Your task to perform on an android device: Add dell xps to the cart on walmart Image 0: 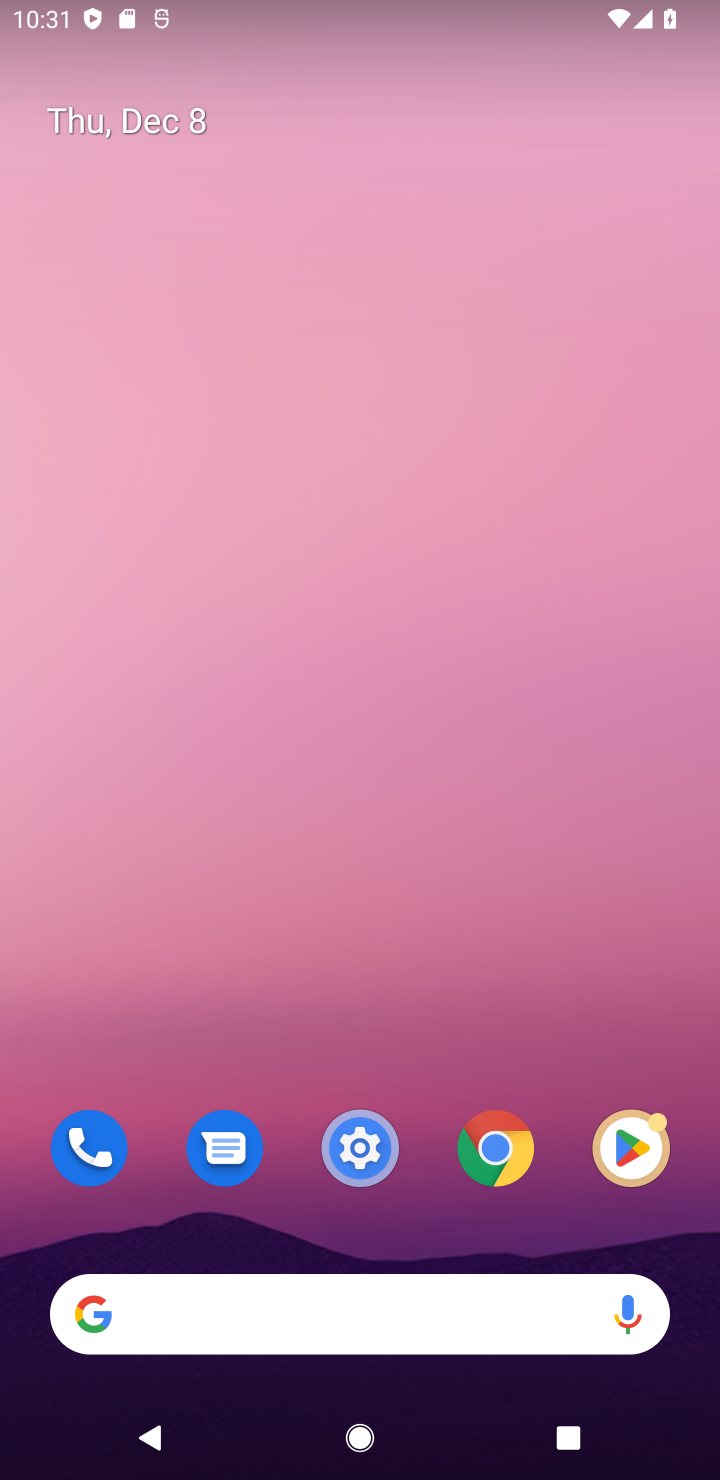
Step 0: click (188, 1304)
Your task to perform on an android device: Add dell xps to the cart on walmart Image 1: 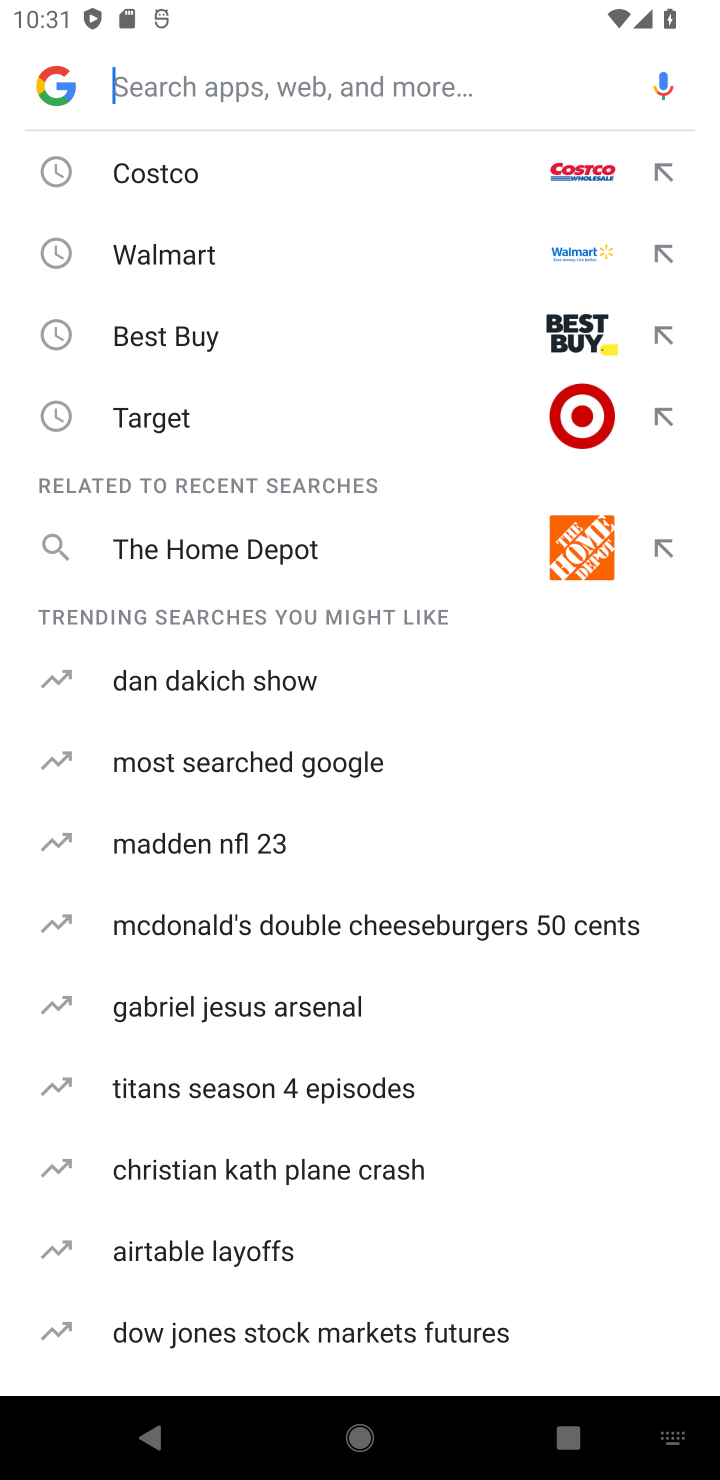
Step 1: click (172, 255)
Your task to perform on an android device: Add dell xps to the cart on walmart Image 2: 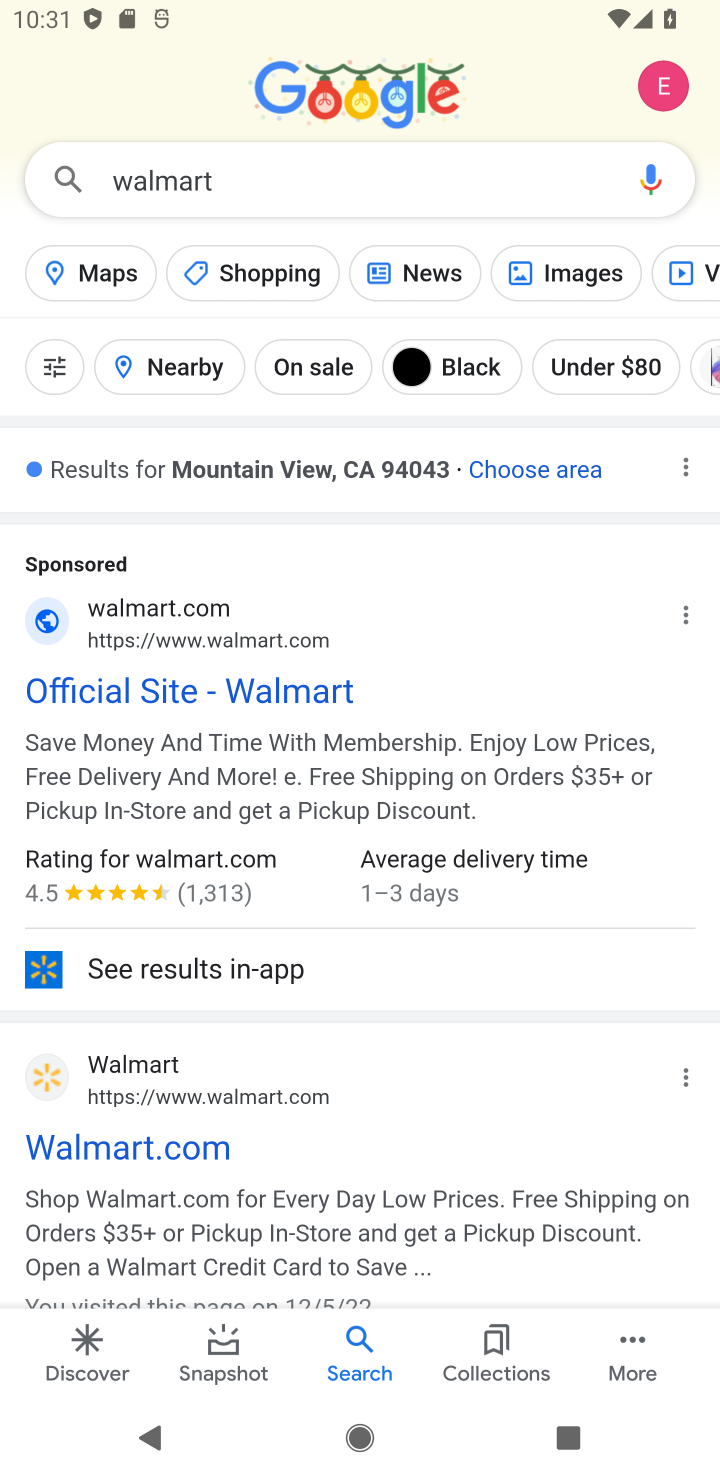
Step 2: click (170, 690)
Your task to perform on an android device: Add dell xps to the cart on walmart Image 3: 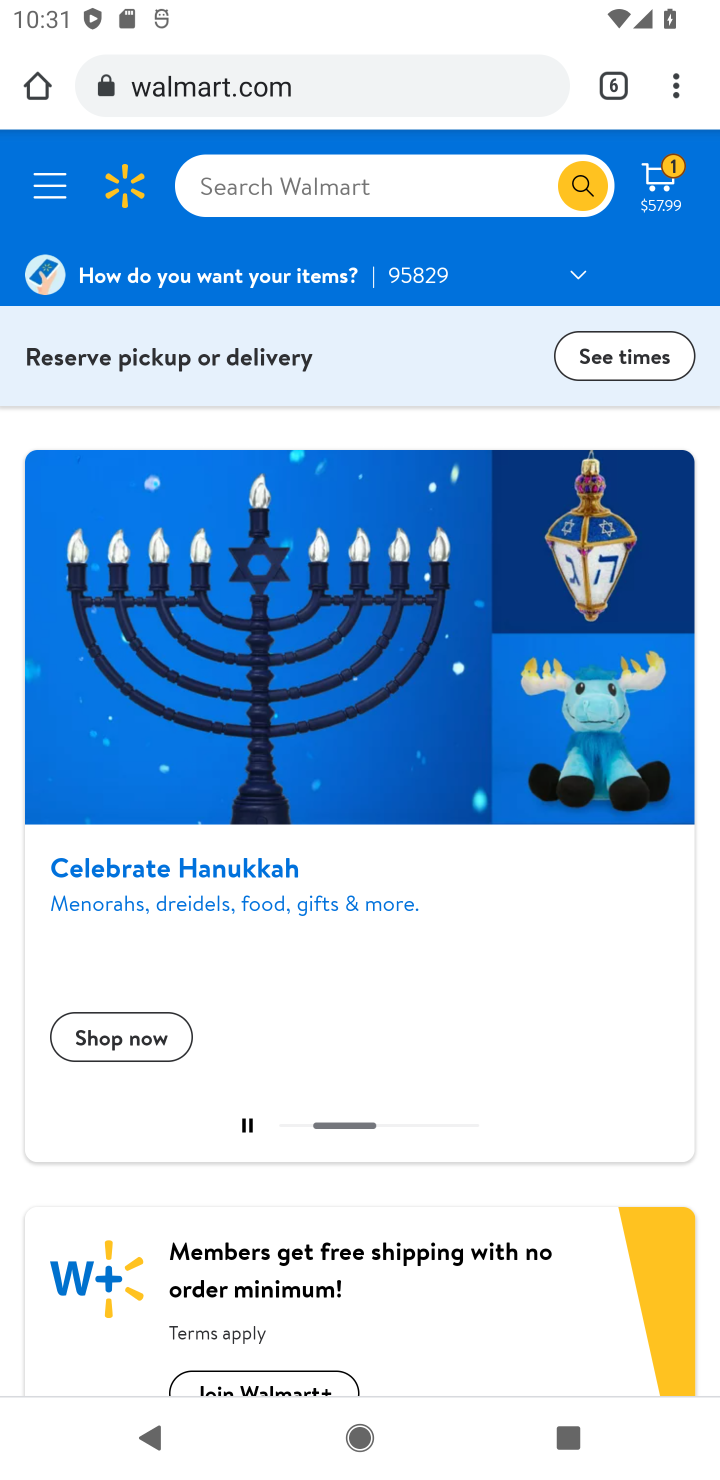
Step 3: click (350, 170)
Your task to perform on an android device: Add dell xps to the cart on walmart Image 4: 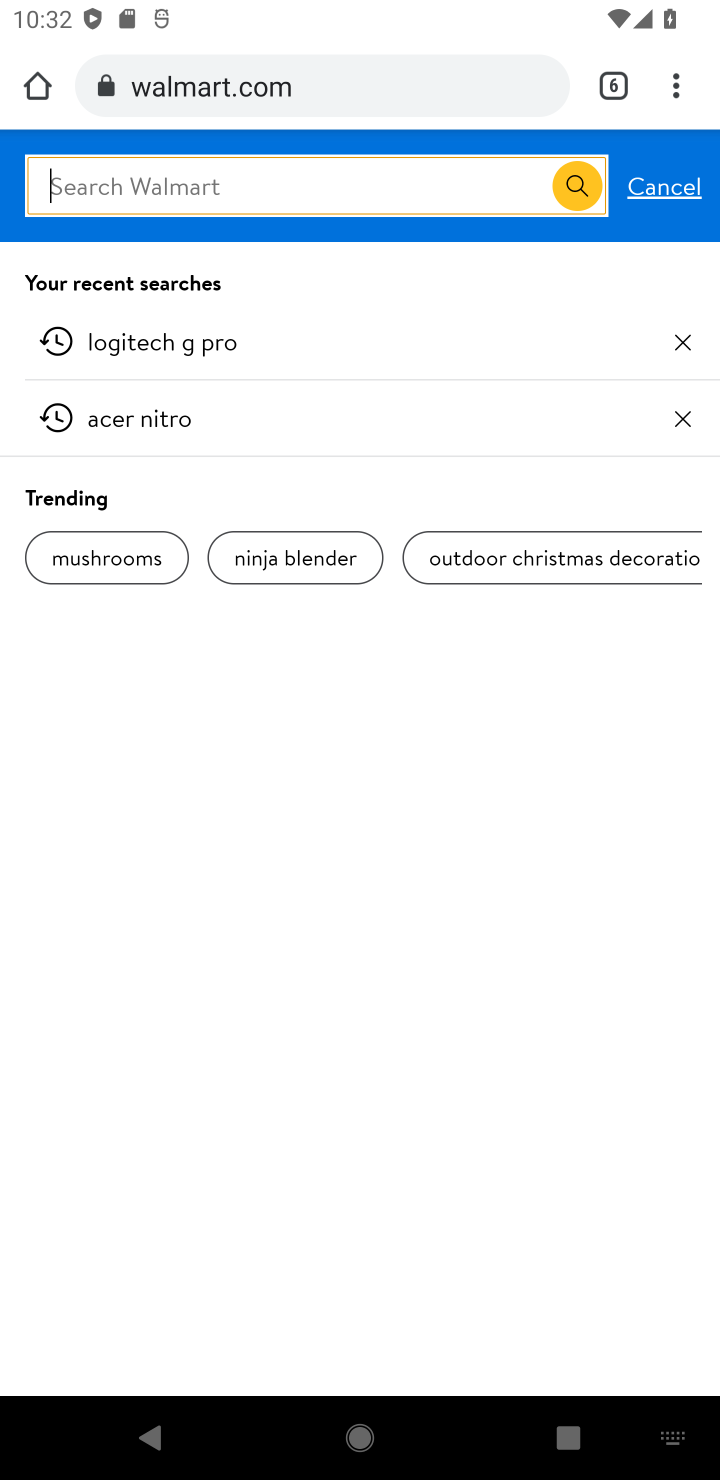
Step 4: type "dell xps"
Your task to perform on an android device: Add dell xps to the cart on walmart Image 5: 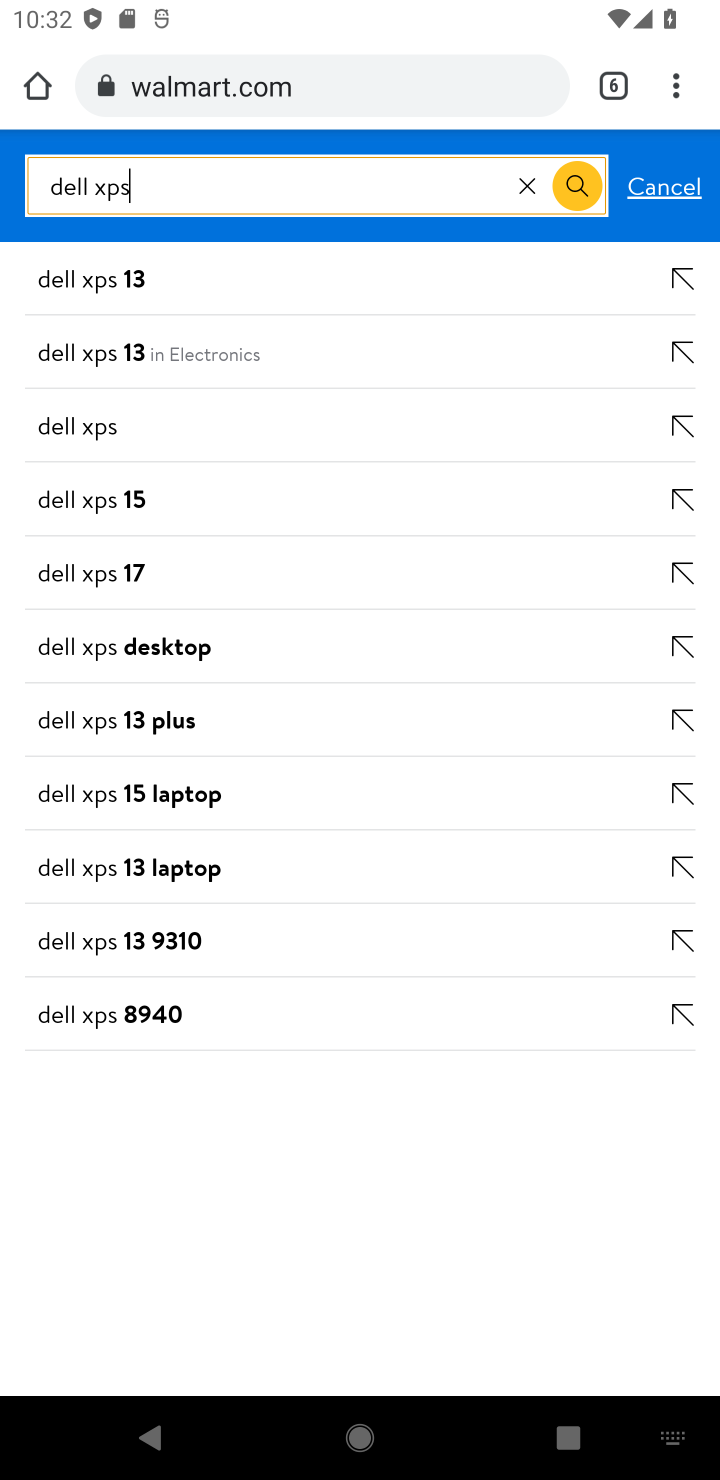
Step 5: click (85, 432)
Your task to perform on an android device: Add dell xps to the cart on walmart Image 6: 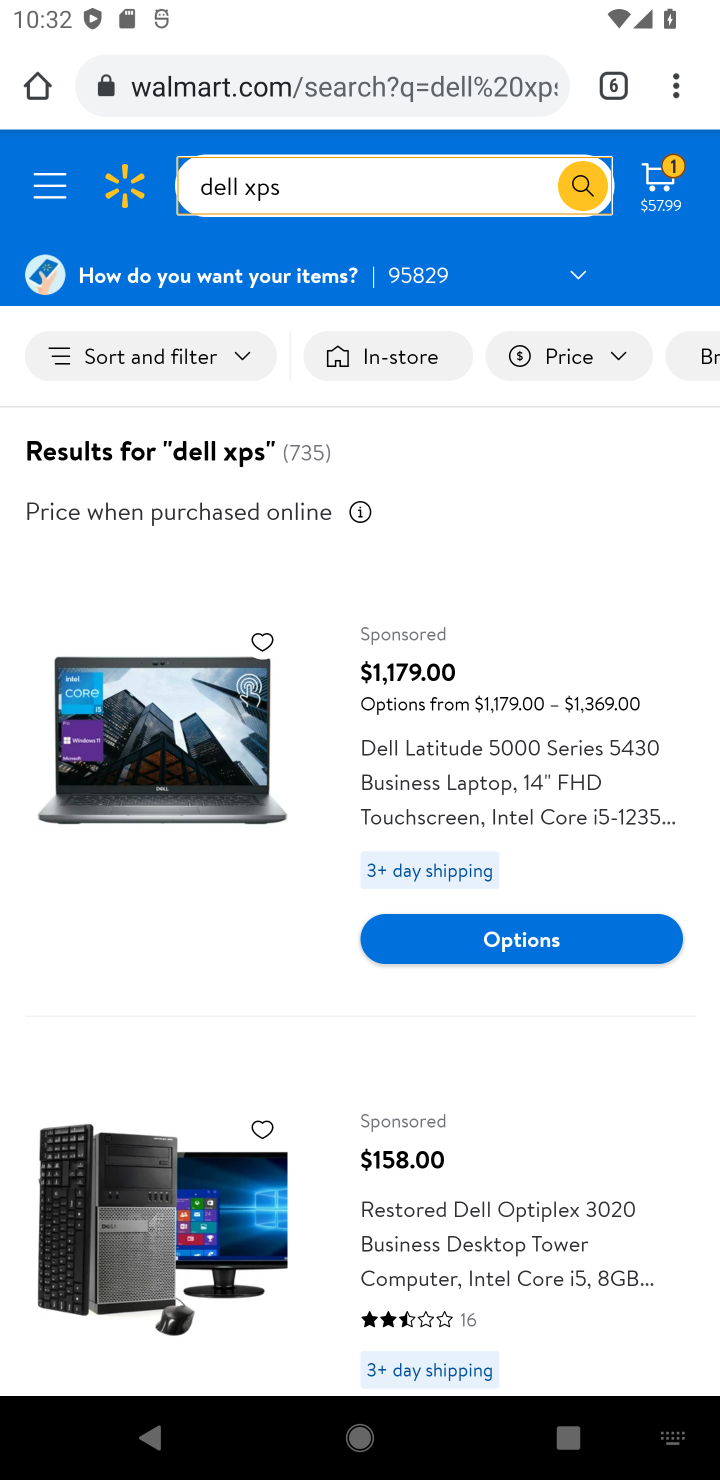
Step 6: click (467, 940)
Your task to perform on an android device: Add dell xps to the cart on walmart Image 7: 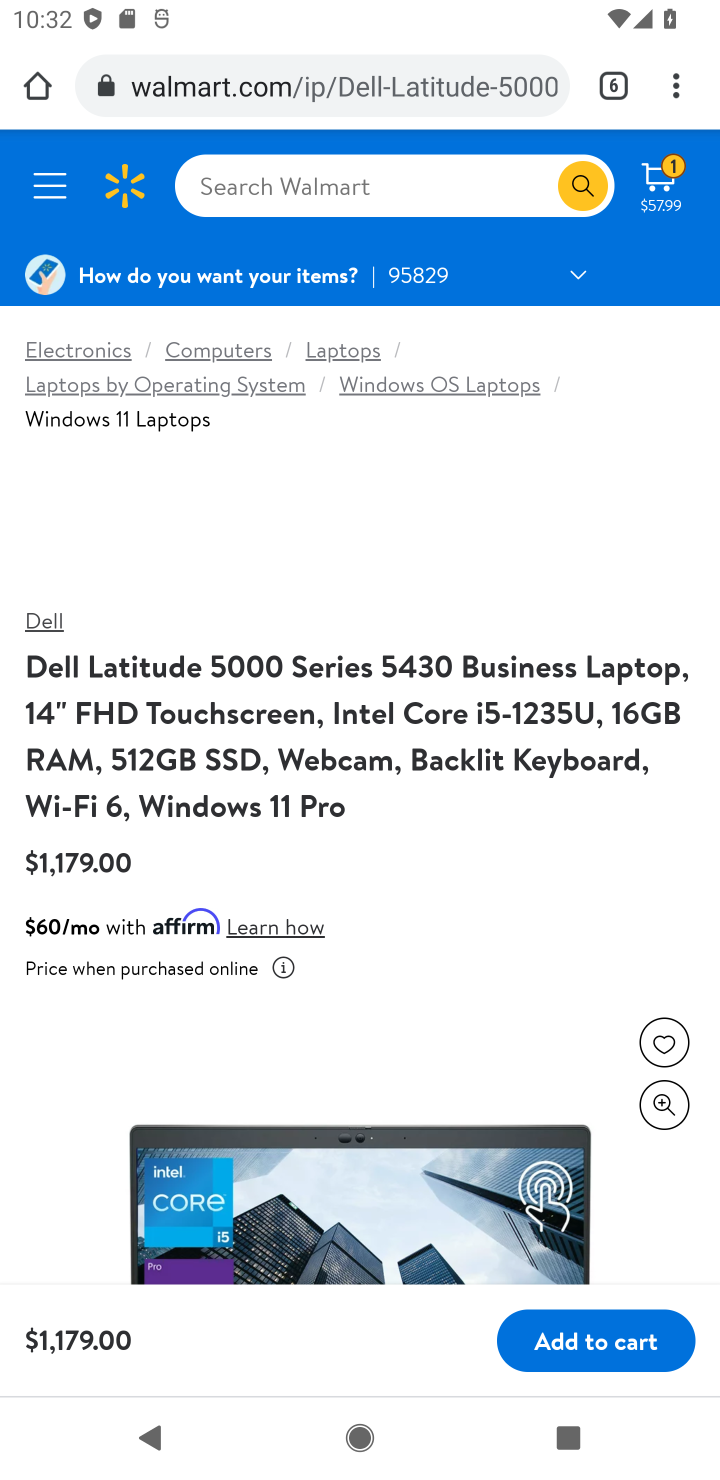
Step 7: click (615, 1330)
Your task to perform on an android device: Add dell xps to the cart on walmart Image 8: 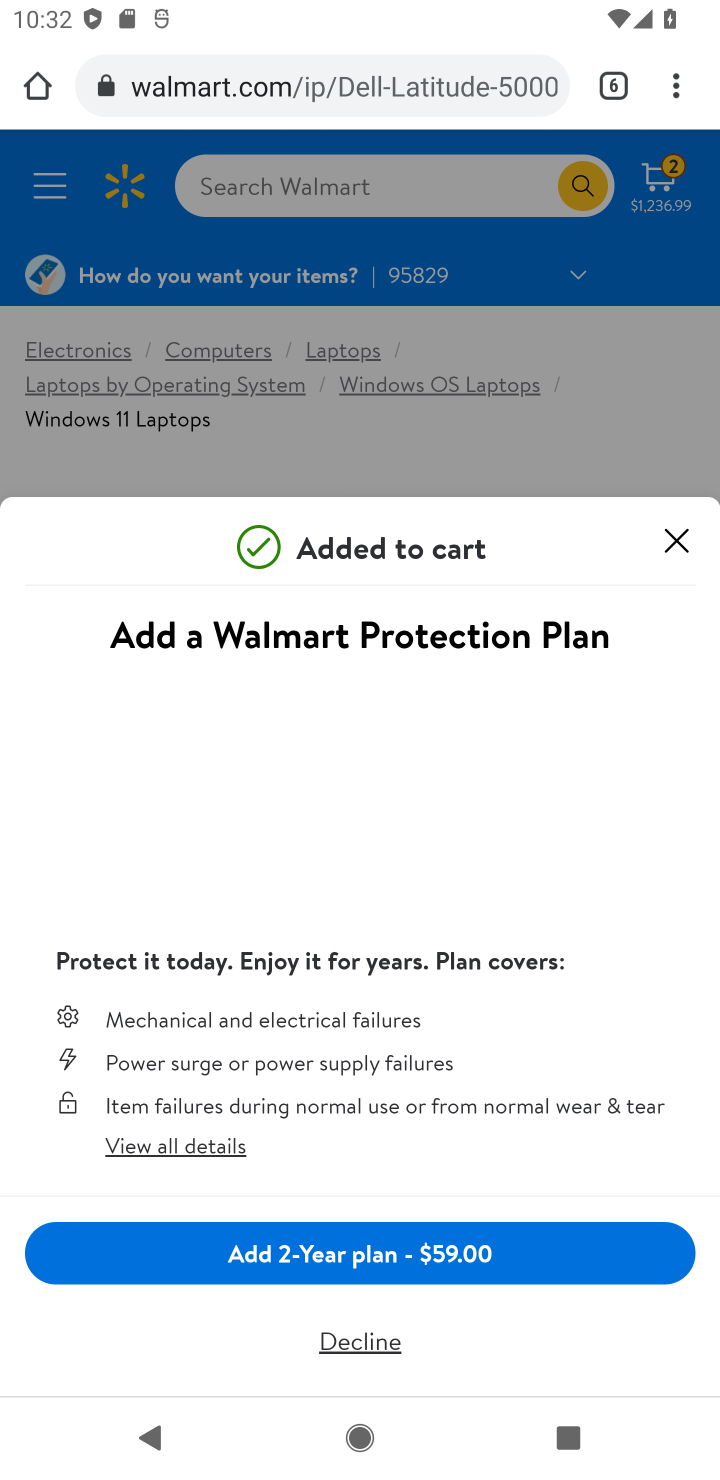
Step 8: click (677, 526)
Your task to perform on an android device: Add dell xps to the cart on walmart Image 9: 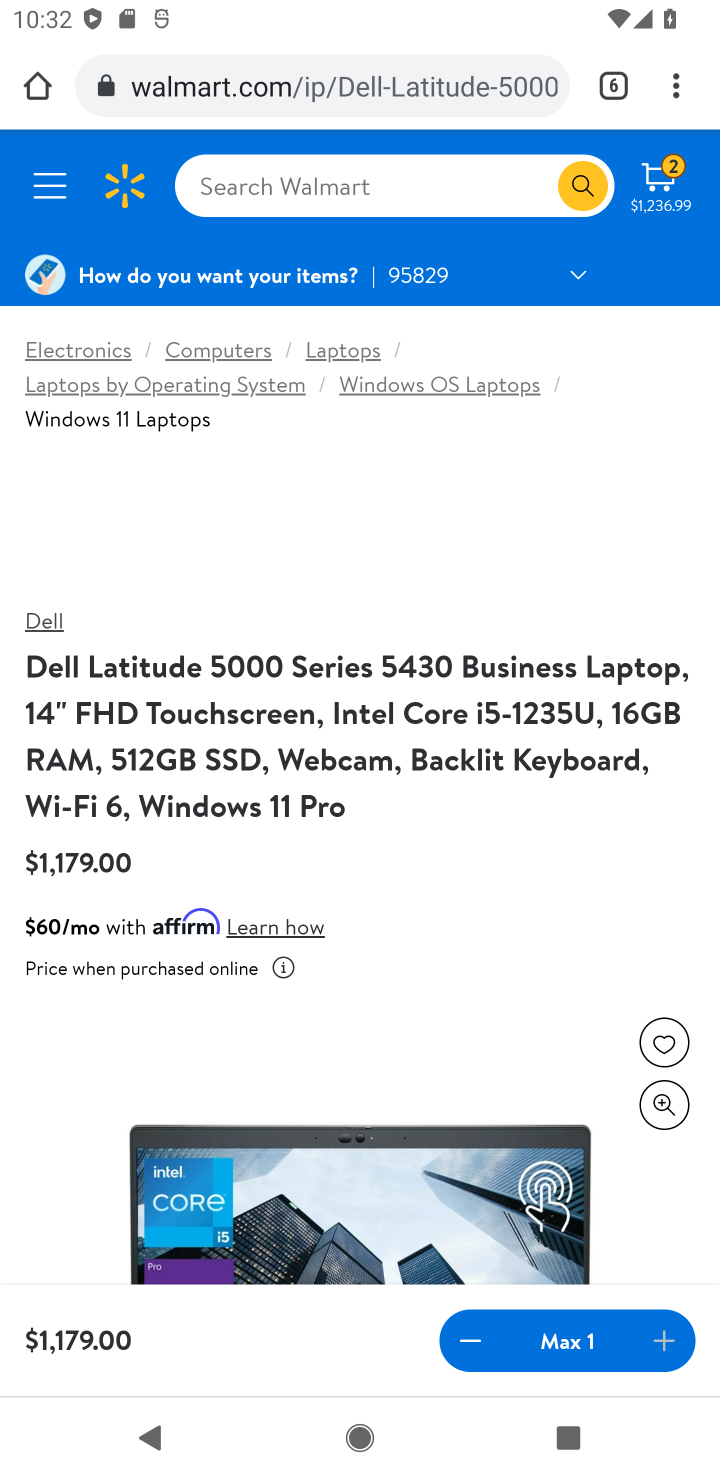
Step 9: task complete